Your task to perform on an android device: Show me popular games on the Play Store Image 0: 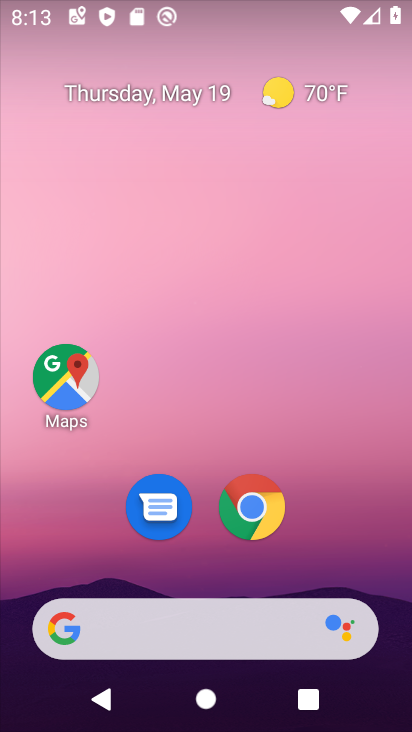
Step 0: drag from (240, 566) to (226, 232)
Your task to perform on an android device: Show me popular games on the Play Store Image 1: 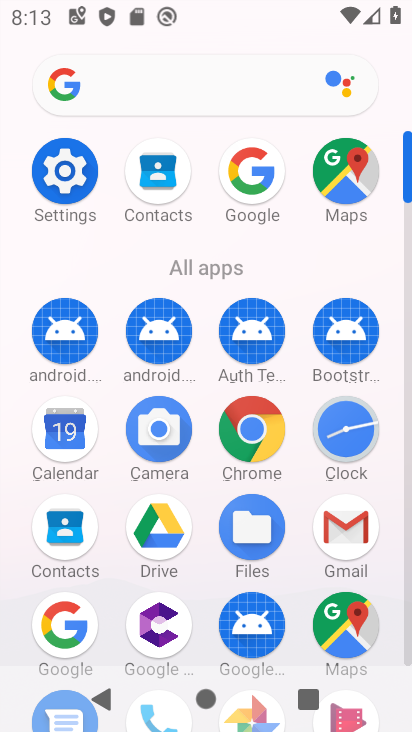
Step 1: drag from (204, 615) to (230, 274)
Your task to perform on an android device: Show me popular games on the Play Store Image 2: 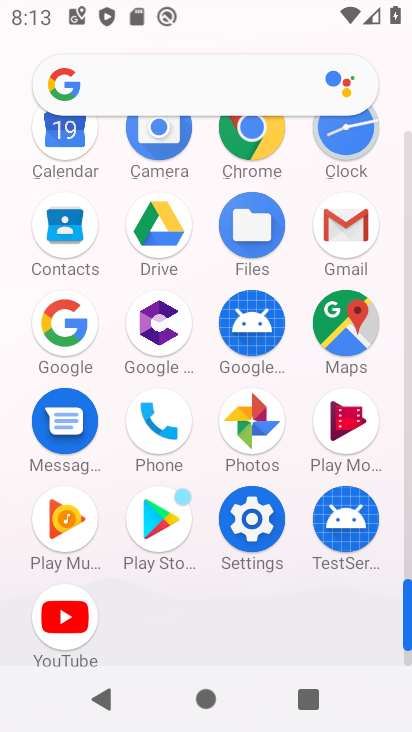
Step 2: click (169, 536)
Your task to perform on an android device: Show me popular games on the Play Store Image 3: 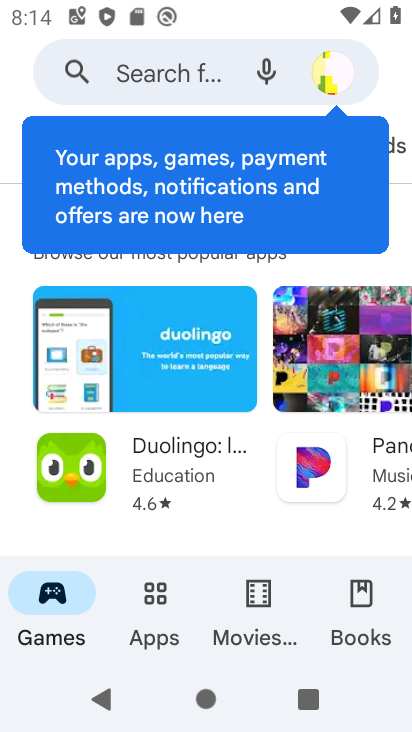
Step 3: click (263, 220)
Your task to perform on an android device: Show me popular games on the Play Store Image 4: 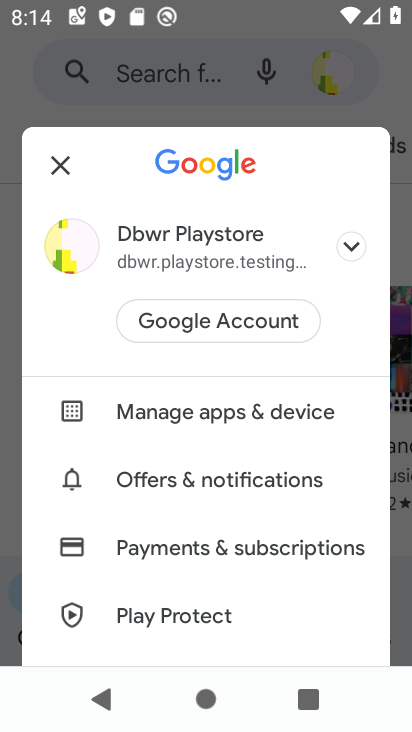
Step 4: click (61, 162)
Your task to perform on an android device: Show me popular games on the Play Store Image 5: 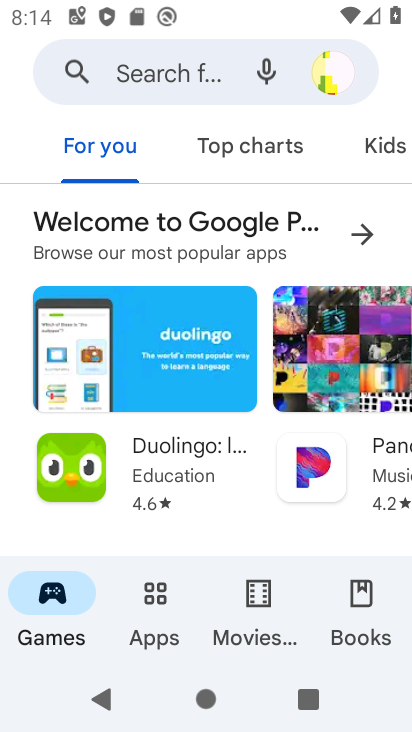
Step 5: click (263, 146)
Your task to perform on an android device: Show me popular games on the Play Store Image 6: 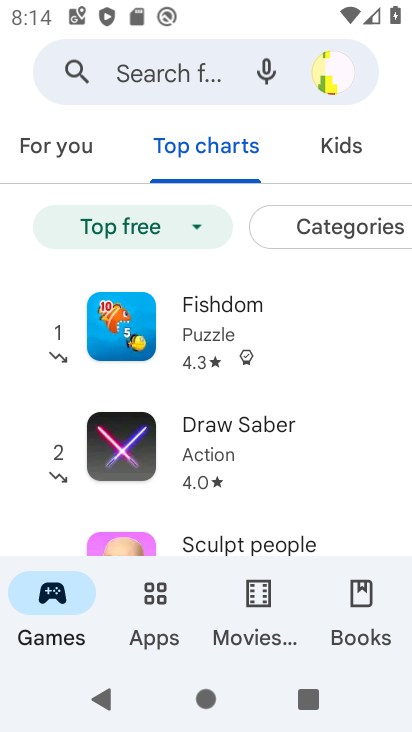
Step 6: task complete